Your task to perform on an android device: turn off notifications in google photos Image 0: 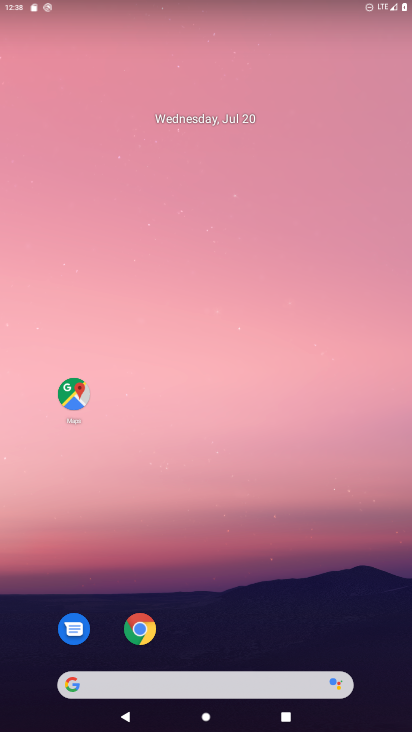
Step 0: drag from (178, 642) to (222, 195)
Your task to perform on an android device: turn off notifications in google photos Image 1: 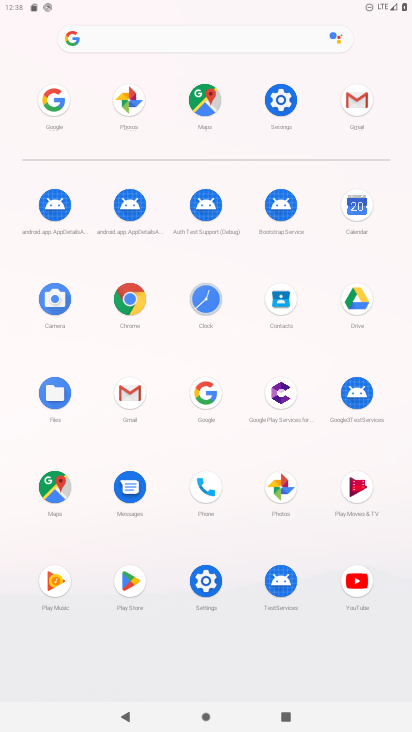
Step 1: click (281, 494)
Your task to perform on an android device: turn off notifications in google photos Image 2: 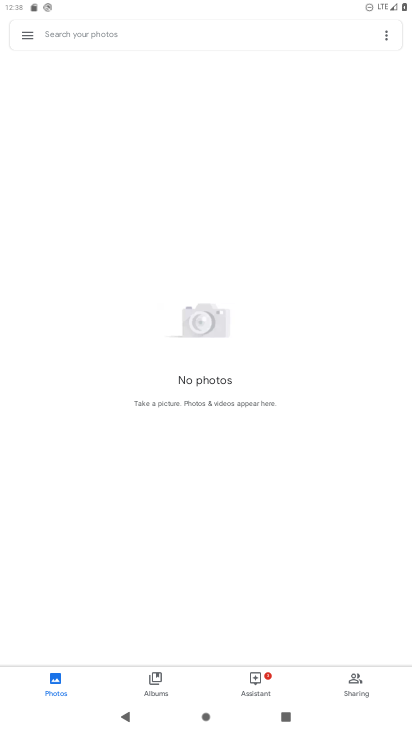
Step 2: click (29, 33)
Your task to perform on an android device: turn off notifications in google photos Image 3: 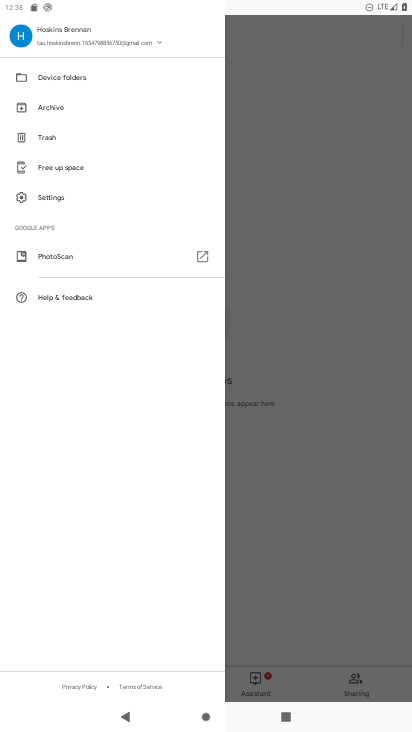
Step 3: click (55, 196)
Your task to perform on an android device: turn off notifications in google photos Image 4: 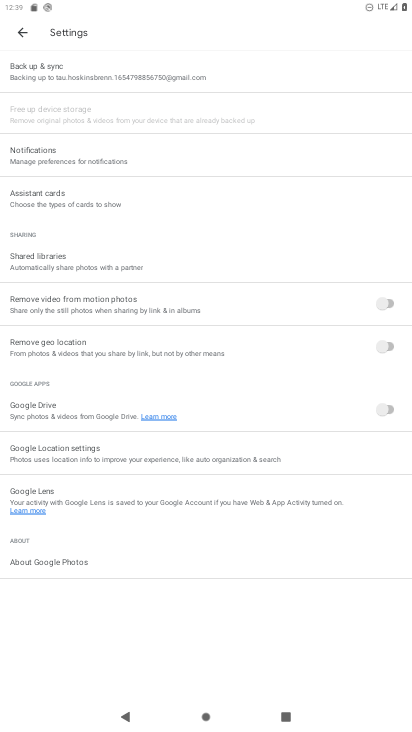
Step 4: click (47, 155)
Your task to perform on an android device: turn off notifications in google photos Image 5: 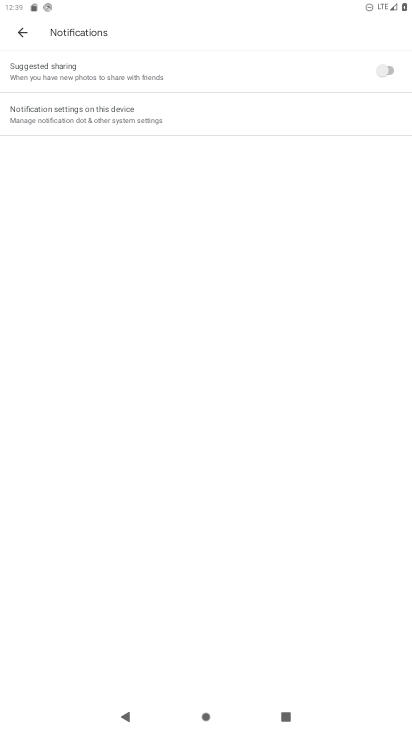
Step 5: click (135, 112)
Your task to perform on an android device: turn off notifications in google photos Image 6: 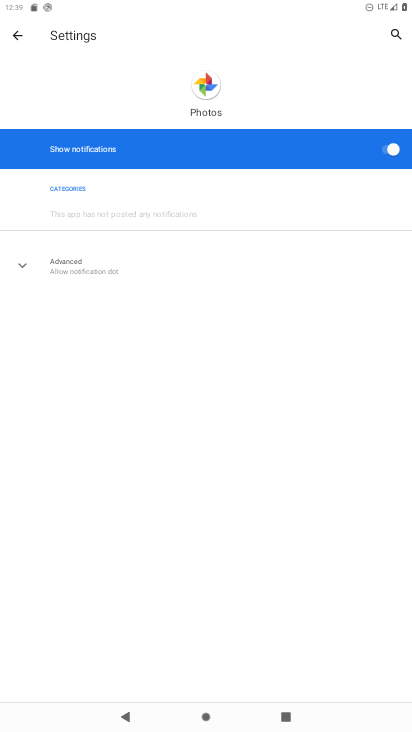
Step 6: click (381, 153)
Your task to perform on an android device: turn off notifications in google photos Image 7: 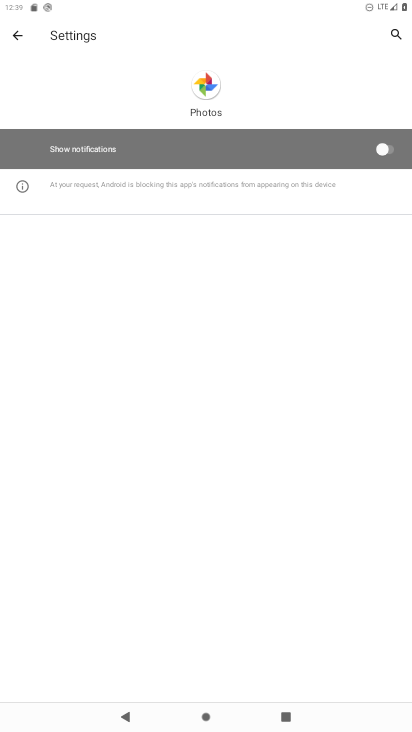
Step 7: task complete